Your task to perform on an android device: toggle notifications settings in the gmail app Image 0: 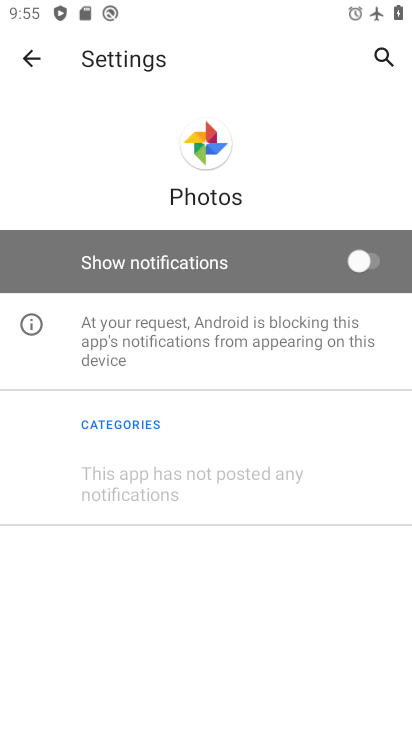
Step 0: press home button
Your task to perform on an android device: toggle notifications settings in the gmail app Image 1: 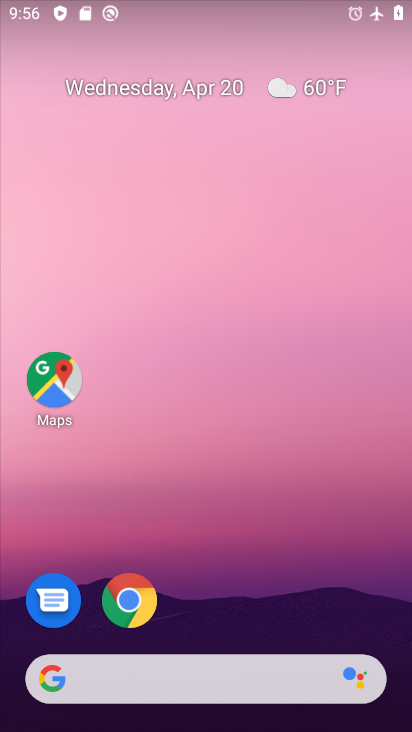
Step 1: drag from (226, 651) to (140, 11)
Your task to perform on an android device: toggle notifications settings in the gmail app Image 2: 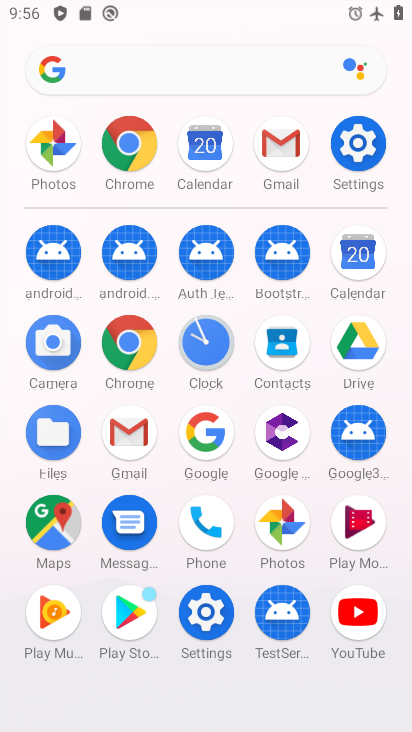
Step 2: click (126, 428)
Your task to perform on an android device: toggle notifications settings in the gmail app Image 3: 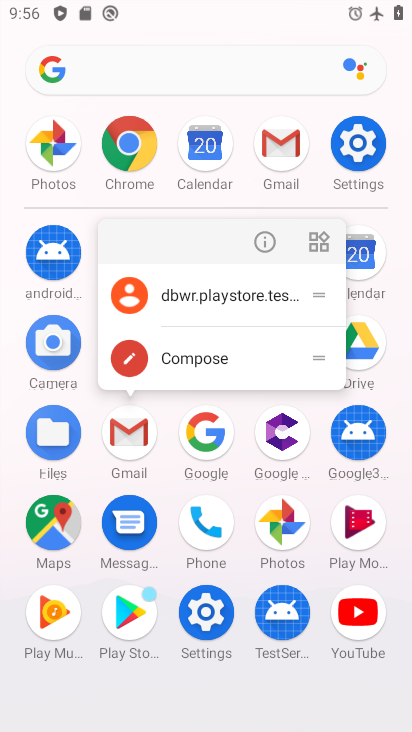
Step 3: click (136, 451)
Your task to perform on an android device: toggle notifications settings in the gmail app Image 4: 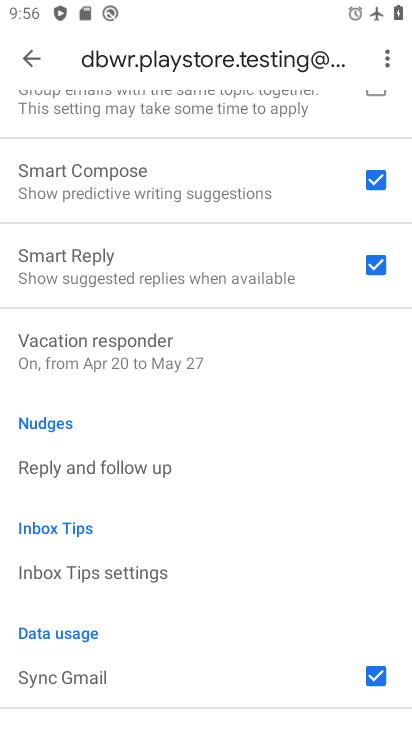
Step 4: click (22, 58)
Your task to perform on an android device: toggle notifications settings in the gmail app Image 5: 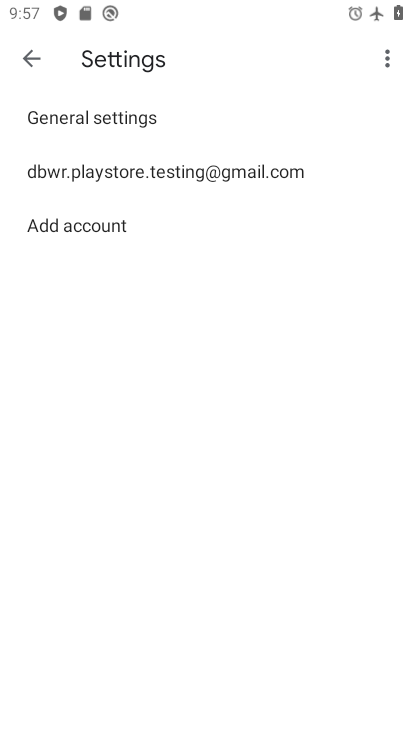
Step 5: click (98, 104)
Your task to perform on an android device: toggle notifications settings in the gmail app Image 6: 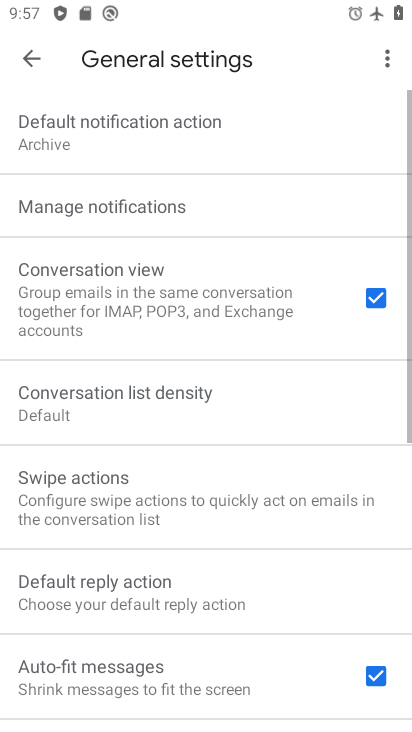
Step 6: click (151, 213)
Your task to perform on an android device: toggle notifications settings in the gmail app Image 7: 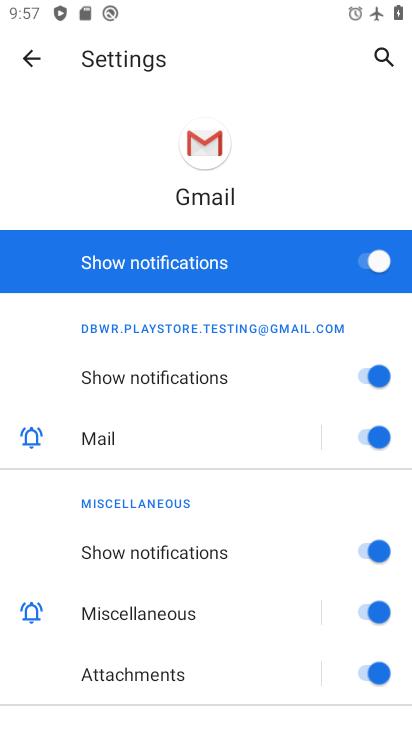
Step 7: click (356, 262)
Your task to perform on an android device: toggle notifications settings in the gmail app Image 8: 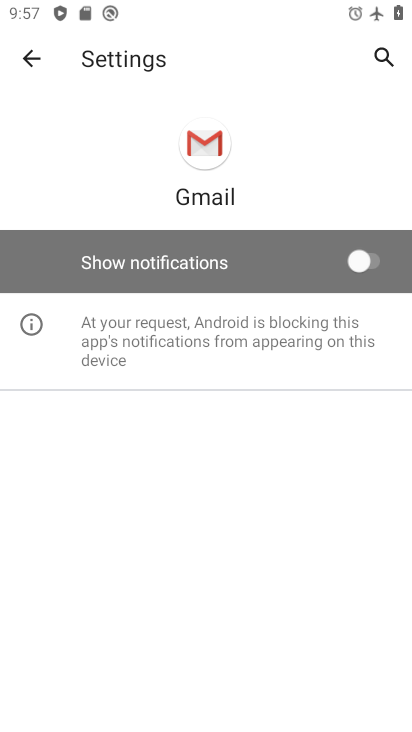
Step 8: task complete